Your task to perform on an android device: Go to Google Image 0: 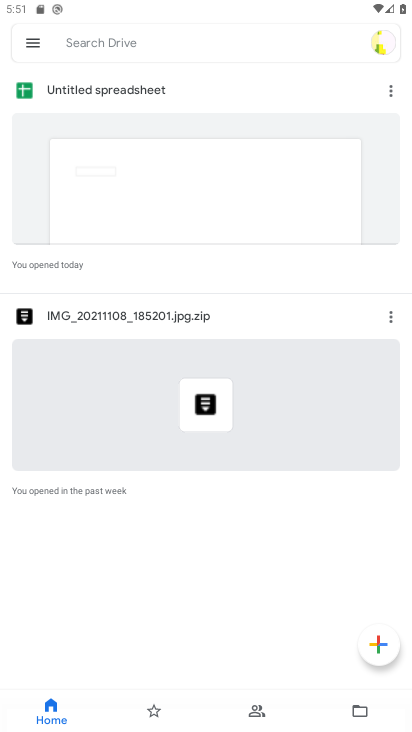
Step 0: press home button
Your task to perform on an android device: Go to Google Image 1: 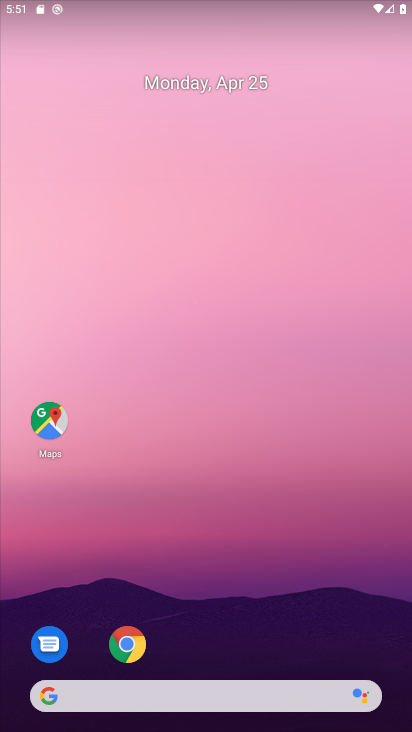
Step 1: drag from (227, 615) to (225, 39)
Your task to perform on an android device: Go to Google Image 2: 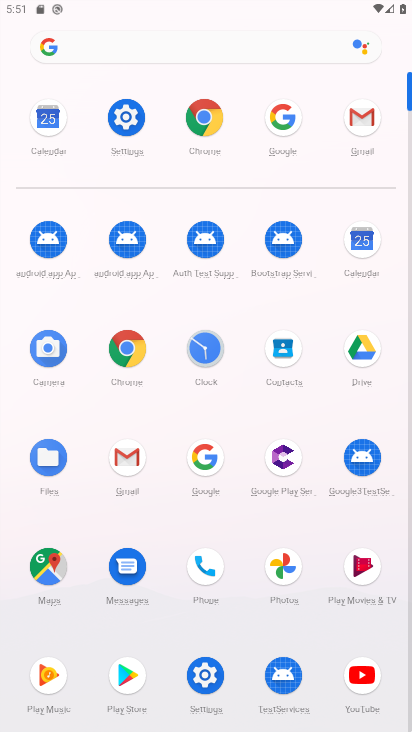
Step 2: click (212, 447)
Your task to perform on an android device: Go to Google Image 3: 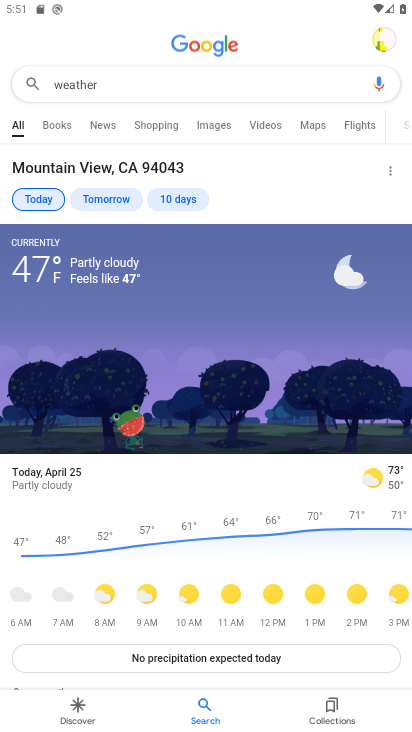
Step 3: task complete